Your task to perform on an android device: Search for bose soundlink mini on target, select the first entry, and add it to the cart. Image 0: 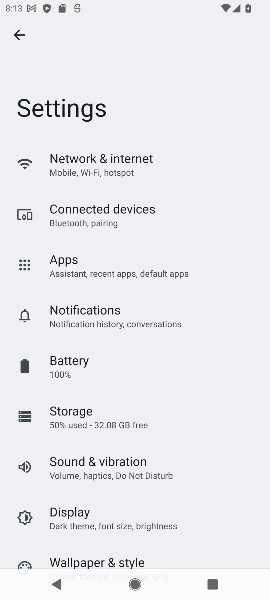
Step 0: press home button
Your task to perform on an android device: Search for bose soundlink mini on target, select the first entry, and add it to the cart. Image 1: 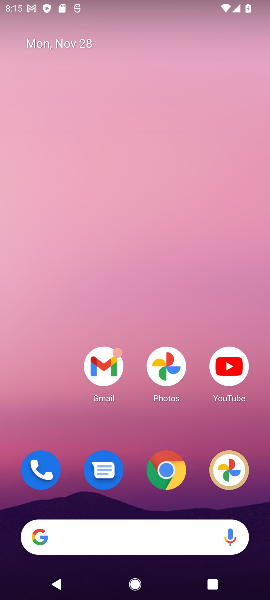
Step 1: click (95, 544)
Your task to perform on an android device: Search for bose soundlink mini on target, select the first entry, and add it to the cart. Image 2: 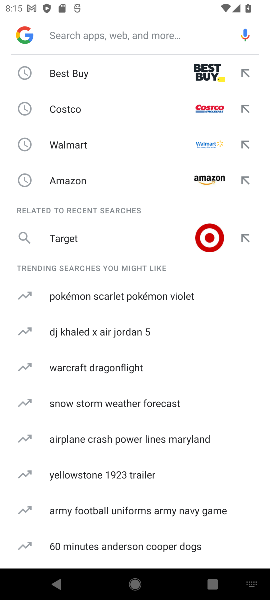
Step 2: click (116, 238)
Your task to perform on an android device: Search for bose soundlink mini on target, select the first entry, and add it to the cart. Image 3: 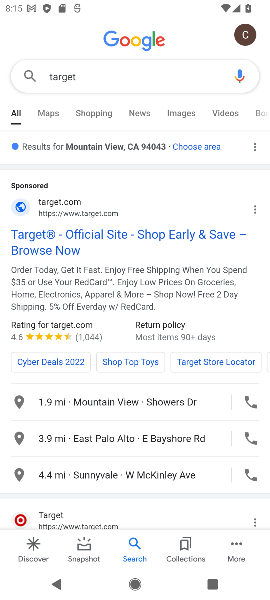
Step 3: click (44, 514)
Your task to perform on an android device: Search for bose soundlink mini on target, select the first entry, and add it to the cart. Image 4: 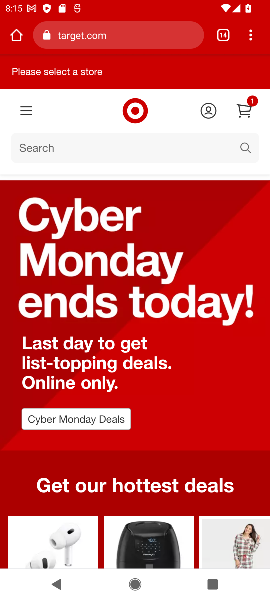
Step 4: click (90, 149)
Your task to perform on an android device: Search for bose soundlink mini on target, select the first entry, and add it to the cart. Image 5: 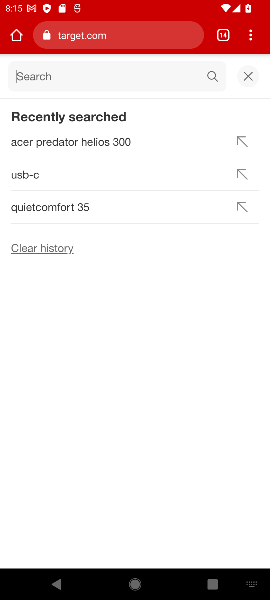
Step 5: type "soundlink mini"
Your task to perform on an android device: Search for bose soundlink mini on target, select the first entry, and add it to the cart. Image 6: 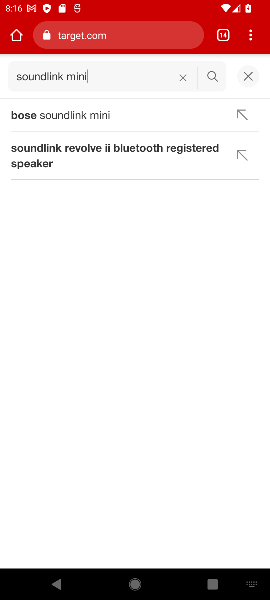
Step 6: click (81, 116)
Your task to perform on an android device: Search for bose soundlink mini on target, select the first entry, and add it to the cart. Image 7: 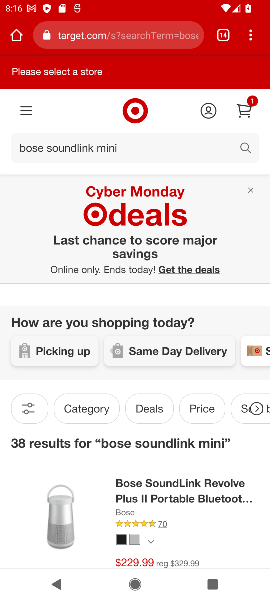
Step 7: drag from (132, 499) to (156, 295)
Your task to perform on an android device: Search for bose soundlink mini on target, select the first entry, and add it to the cart. Image 8: 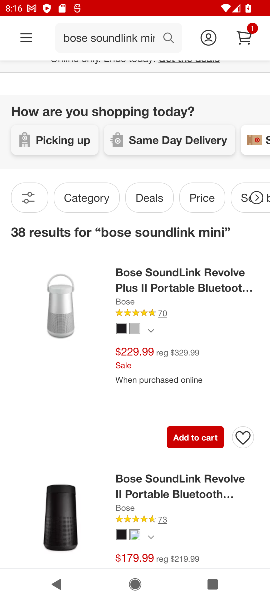
Step 8: click (198, 432)
Your task to perform on an android device: Search for bose soundlink mini on target, select the first entry, and add it to the cart. Image 9: 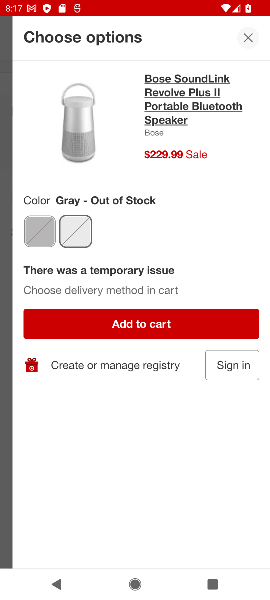
Step 9: click (151, 331)
Your task to perform on an android device: Search for bose soundlink mini on target, select the first entry, and add it to the cart. Image 10: 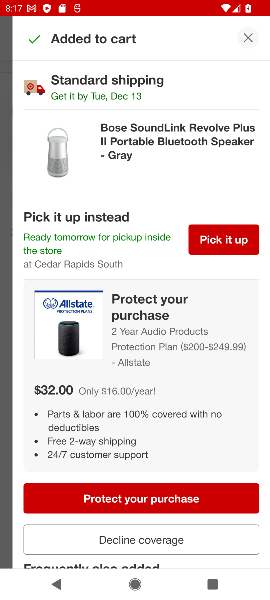
Step 10: click (144, 537)
Your task to perform on an android device: Search for bose soundlink mini on target, select the first entry, and add it to the cart. Image 11: 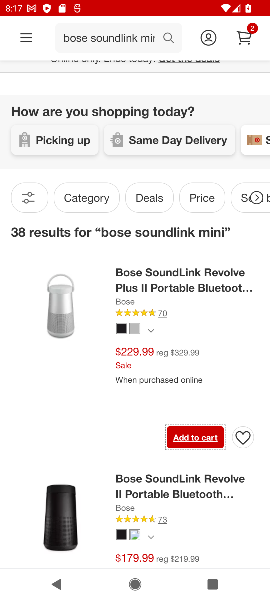
Step 11: task complete